Your task to perform on an android device: Open Google Maps Image 0: 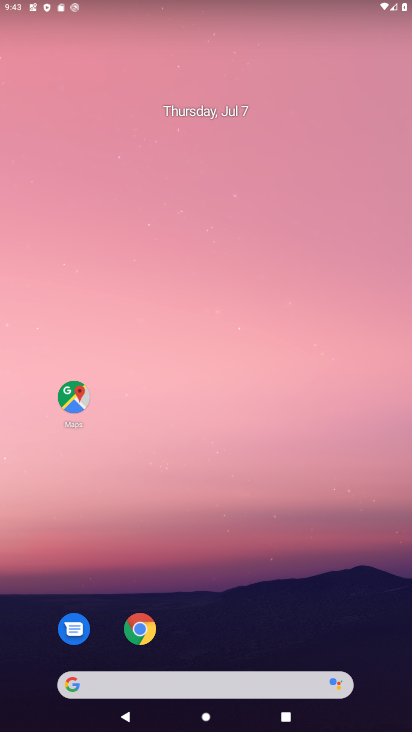
Step 0: click (65, 387)
Your task to perform on an android device: Open Google Maps Image 1: 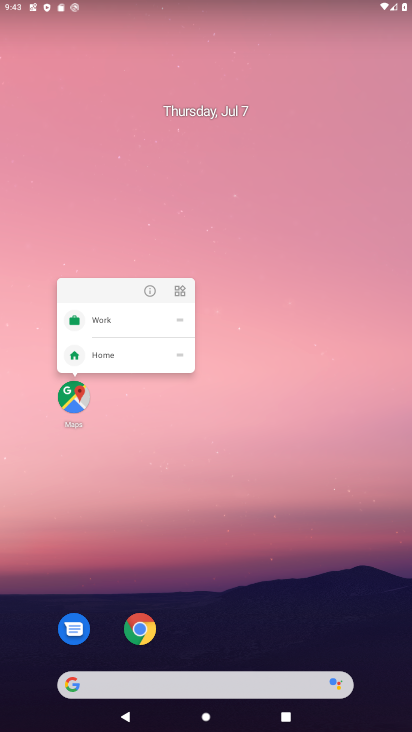
Step 1: click (67, 398)
Your task to perform on an android device: Open Google Maps Image 2: 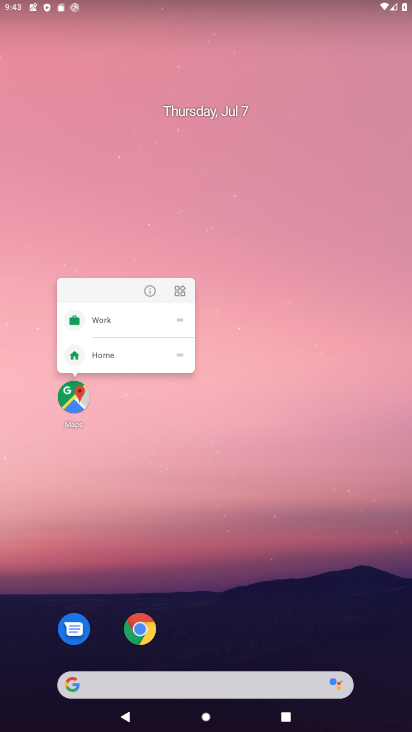
Step 2: click (71, 404)
Your task to perform on an android device: Open Google Maps Image 3: 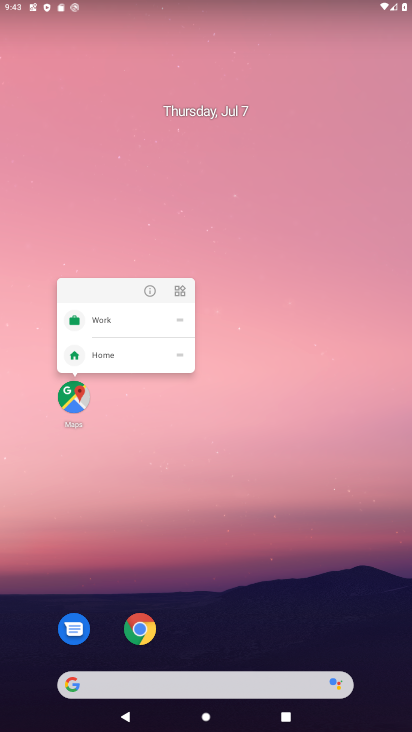
Step 3: click (72, 396)
Your task to perform on an android device: Open Google Maps Image 4: 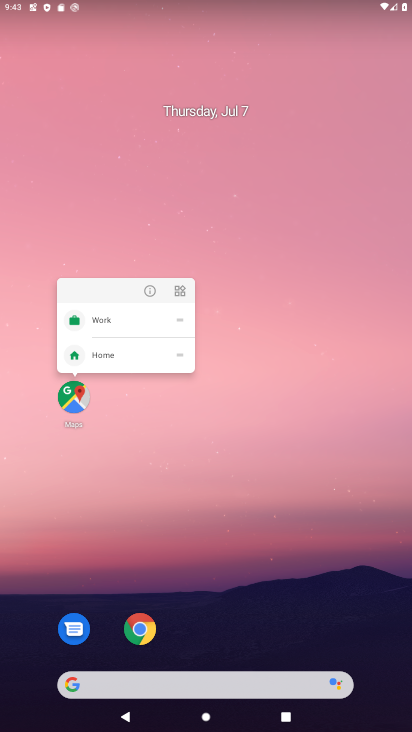
Step 4: click (71, 403)
Your task to perform on an android device: Open Google Maps Image 5: 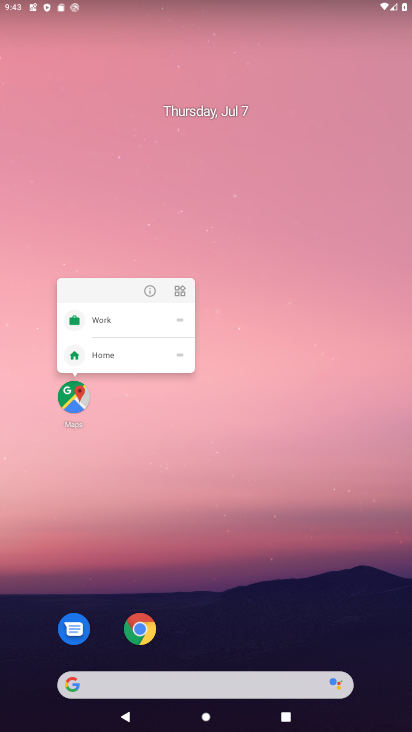
Step 5: click (69, 408)
Your task to perform on an android device: Open Google Maps Image 6: 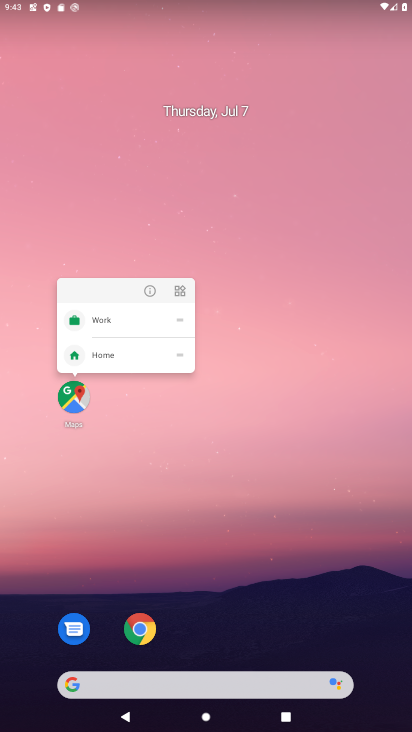
Step 6: click (72, 391)
Your task to perform on an android device: Open Google Maps Image 7: 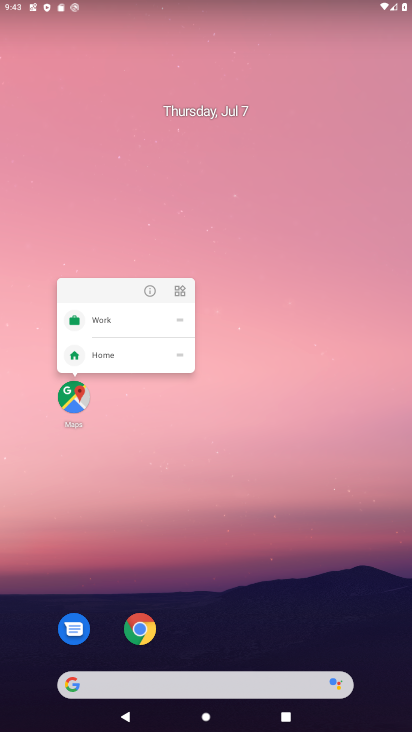
Step 7: click (68, 396)
Your task to perform on an android device: Open Google Maps Image 8: 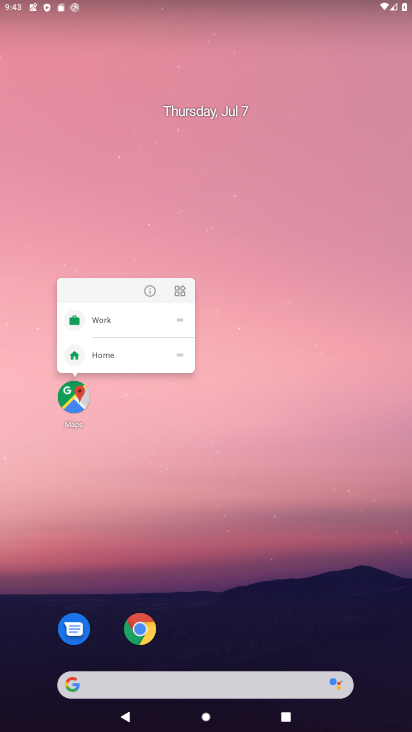
Step 8: click (51, 381)
Your task to perform on an android device: Open Google Maps Image 9: 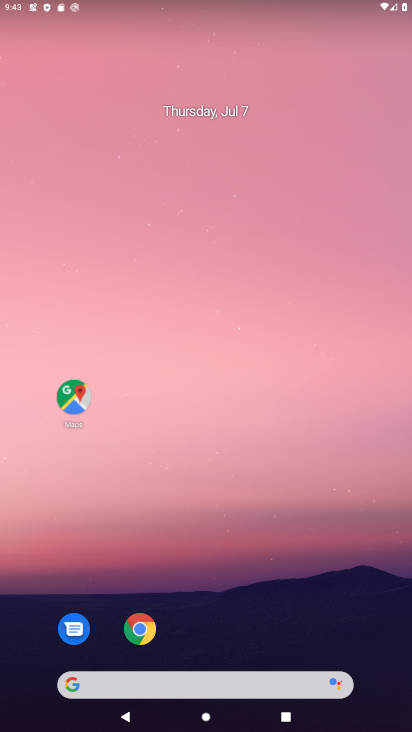
Step 9: click (68, 399)
Your task to perform on an android device: Open Google Maps Image 10: 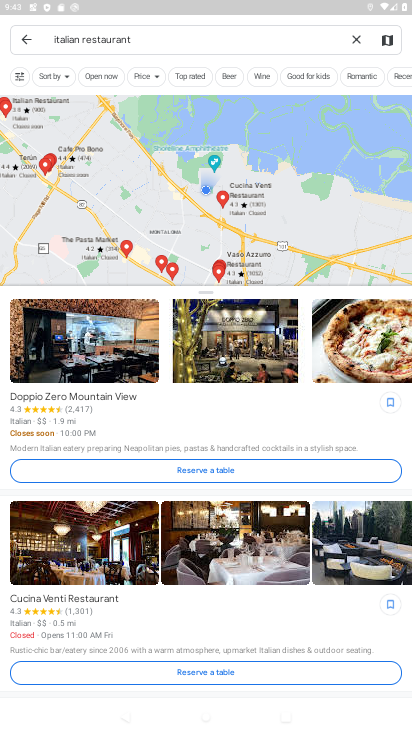
Step 10: click (11, 34)
Your task to perform on an android device: Open Google Maps Image 11: 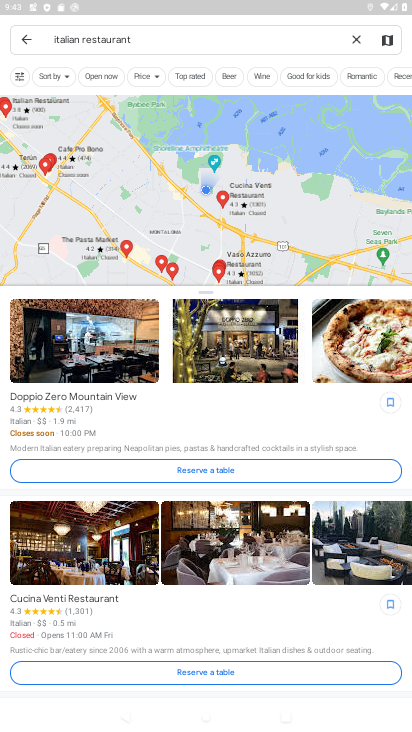
Step 11: click (21, 34)
Your task to perform on an android device: Open Google Maps Image 12: 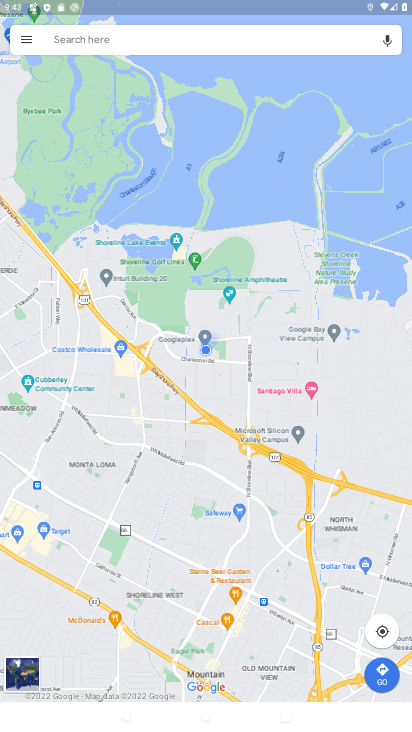
Step 12: task complete